Your task to perform on an android device: open wifi settings Image 0: 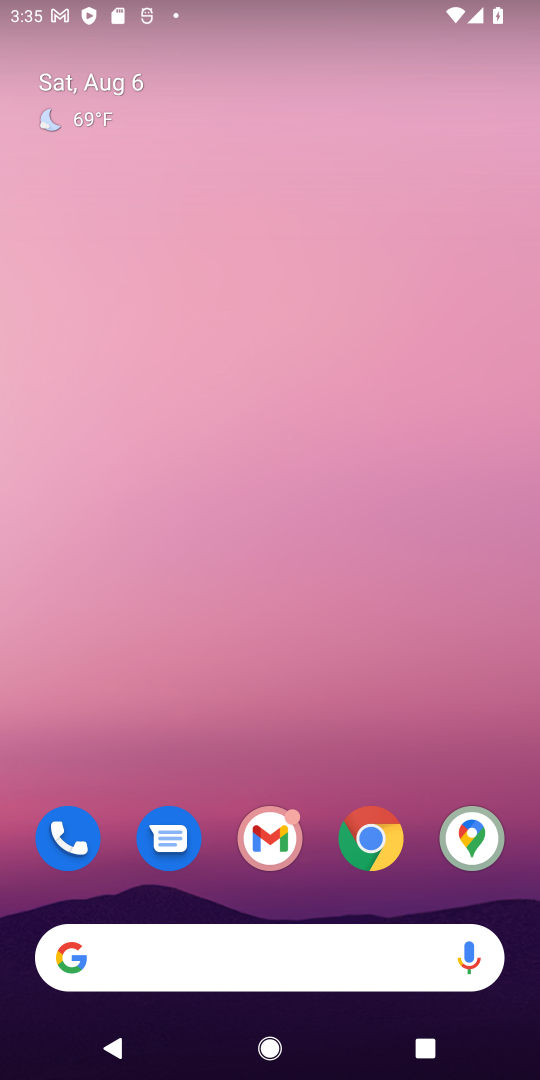
Step 0: press home button
Your task to perform on an android device: open wifi settings Image 1: 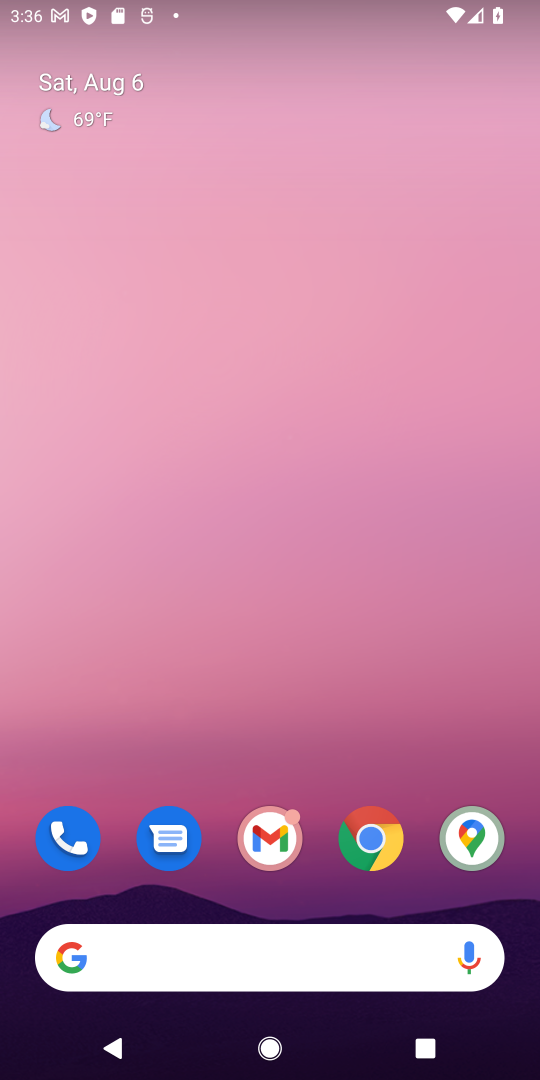
Step 1: drag from (53, 840) to (319, 14)
Your task to perform on an android device: open wifi settings Image 2: 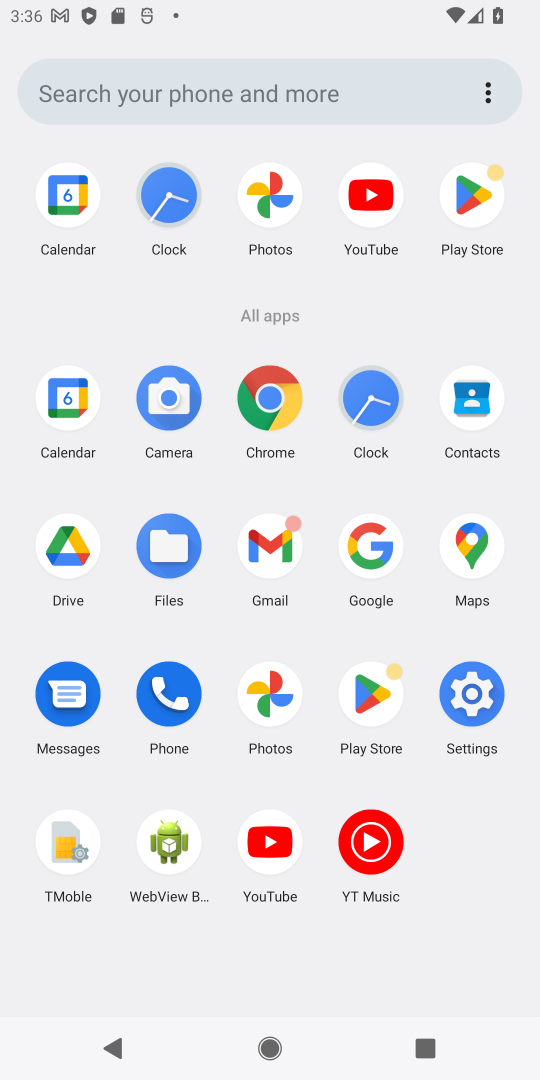
Step 2: click (474, 676)
Your task to perform on an android device: open wifi settings Image 3: 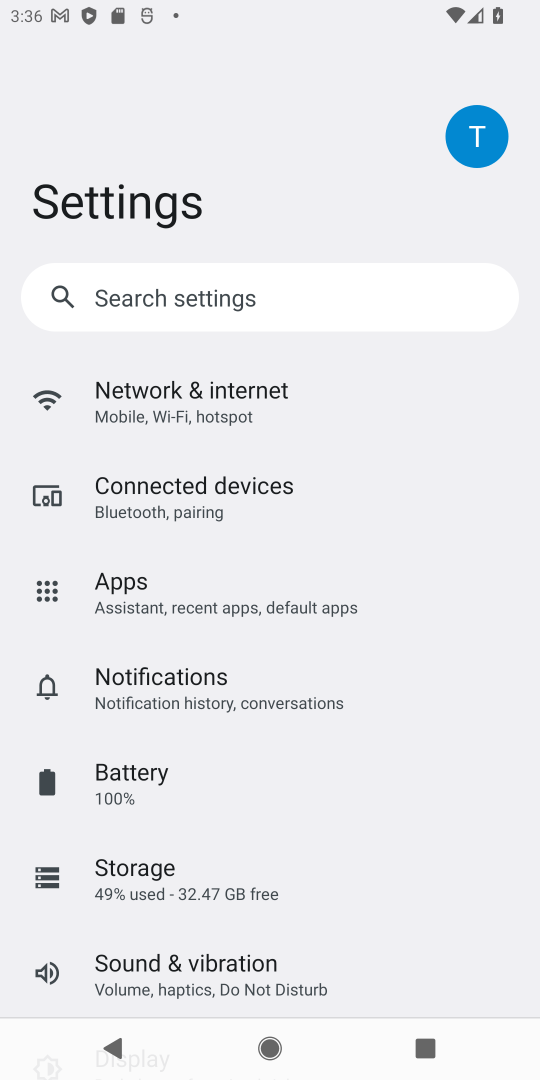
Step 3: click (227, 376)
Your task to perform on an android device: open wifi settings Image 4: 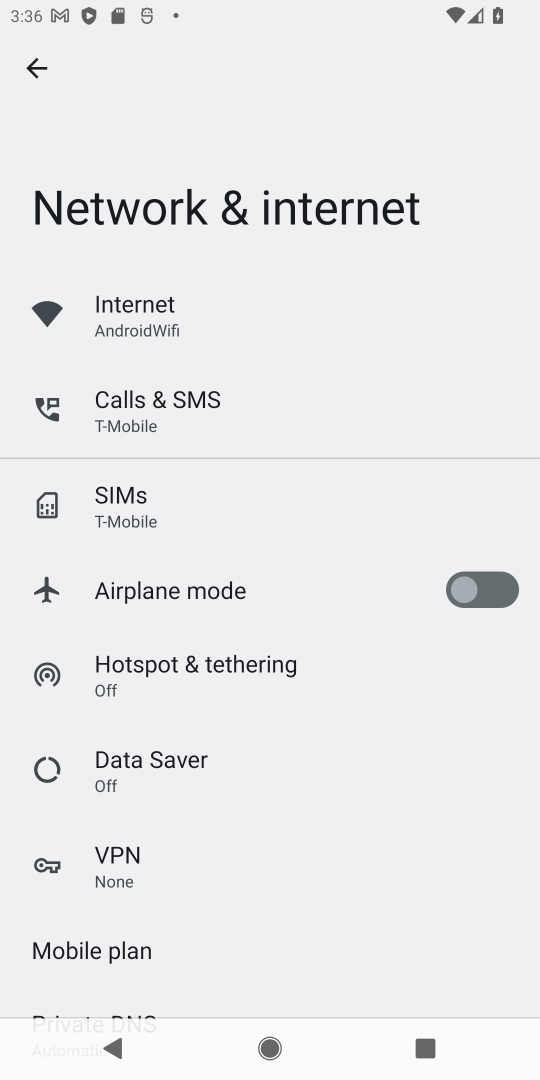
Step 4: click (151, 317)
Your task to perform on an android device: open wifi settings Image 5: 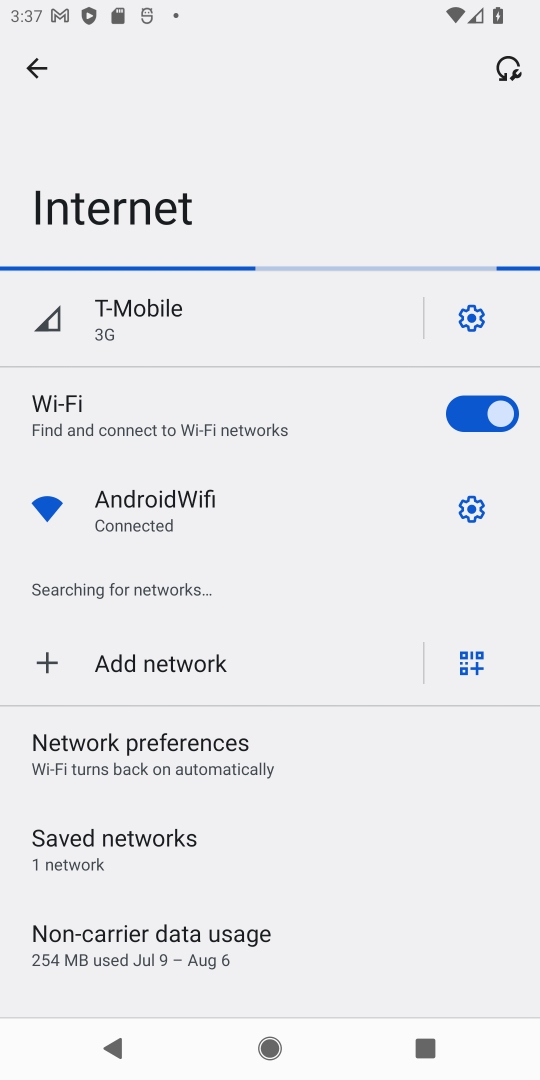
Step 5: click (476, 511)
Your task to perform on an android device: open wifi settings Image 6: 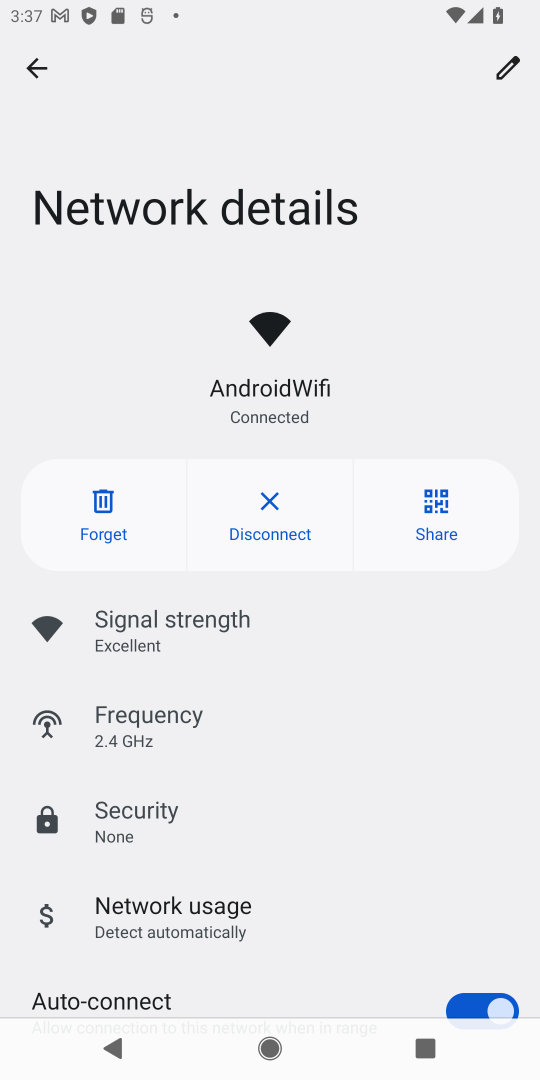
Step 6: task complete